Your task to perform on an android device: turn pop-ups off in chrome Image 0: 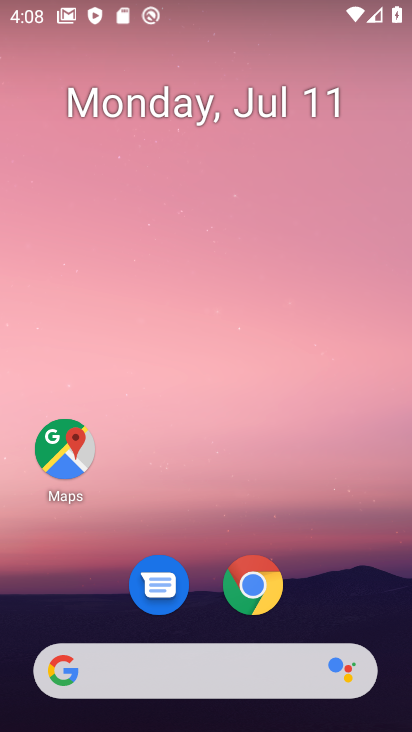
Step 0: drag from (232, 512) to (256, 176)
Your task to perform on an android device: turn pop-ups off in chrome Image 1: 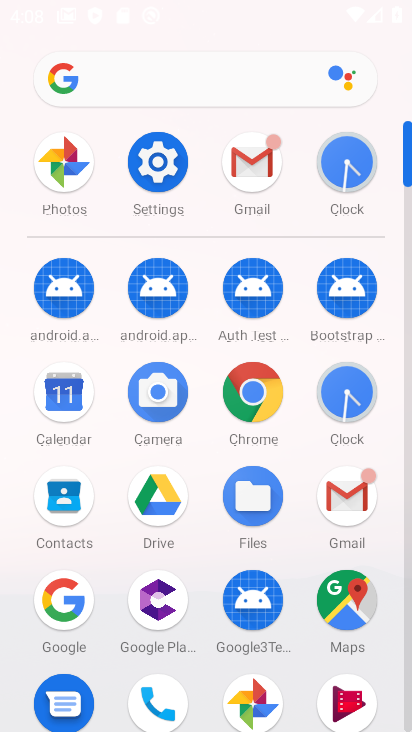
Step 1: click (251, 386)
Your task to perform on an android device: turn pop-ups off in chrome Image 2: 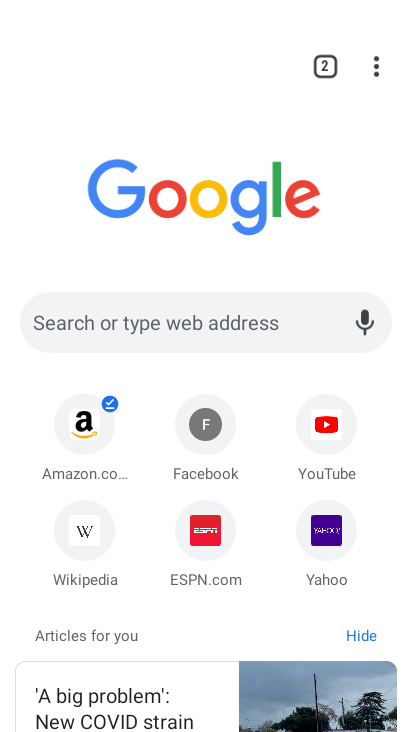
Step 2: click (374, 66)
Your task to perform on an android device: turn pop-ups off in chrome Image 3: 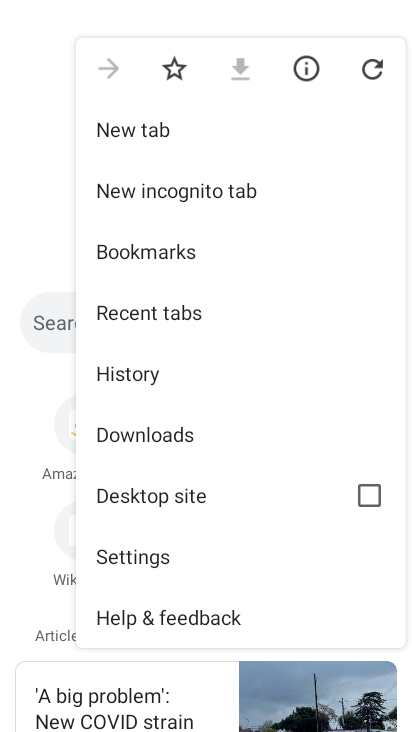
Step 3: click (163, 552)
Your task to perform on an android device: turn pop-ups off in chrome Image 4: 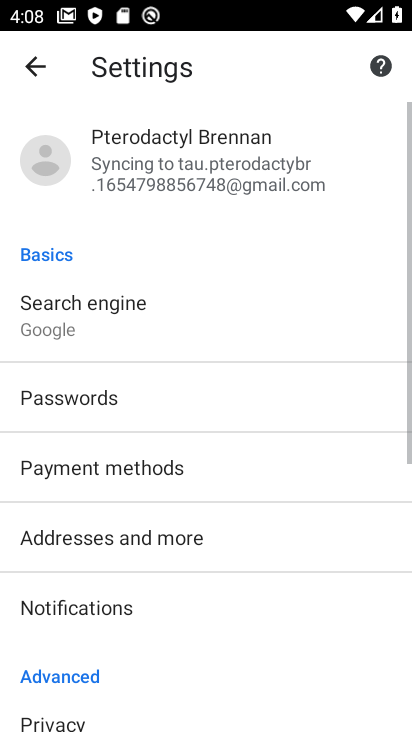
Step 4: drag from (223, 578) to (263, 216)
Your task to perform on an android device: turn pop-ups off in chrome Image 5: 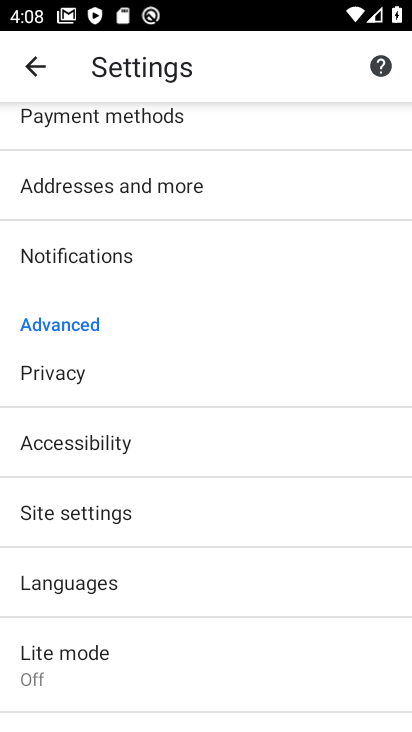
Step 5: click (117, 508)
Your task to perform on an android device: turn pop-ups off in chrome Image 6: 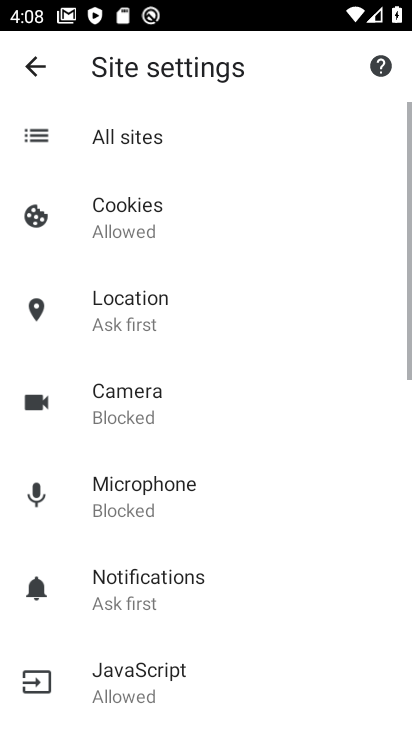
Step 6: drag from (240, 586) to (263, 303)
Your task to perform on an android device: turn pop-ups off in chrome Image 7: 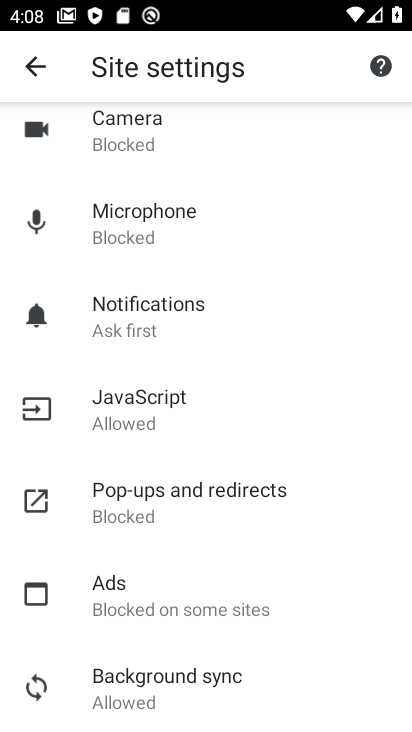
Step 7: click (219, 479)
Your task to perform on an android device: turn pop-ups off in chrome Image 8: 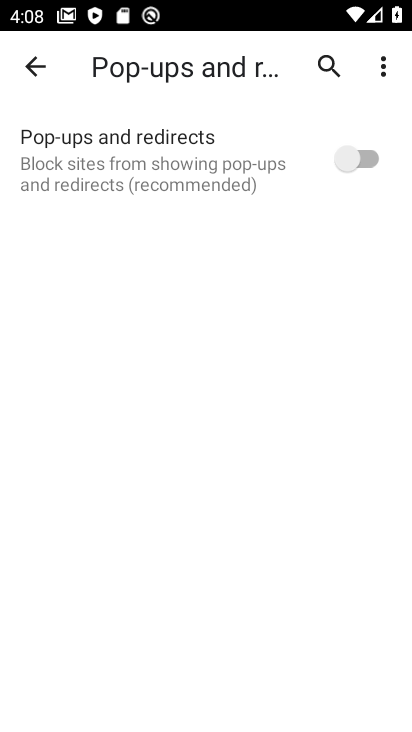
Step 8: click (347, 153)
Your task to perform on an android device: turn pop-ups off in chrome Image 9: 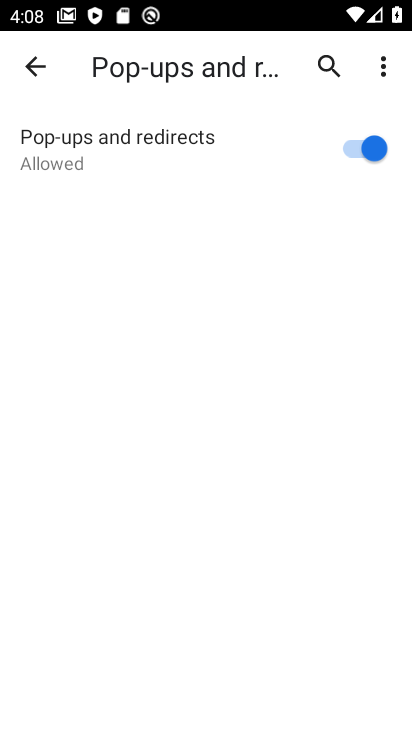
Step 9: click (351, 143)
Your task to perform on an android device: turn pop-ups off in chrome Image 10: 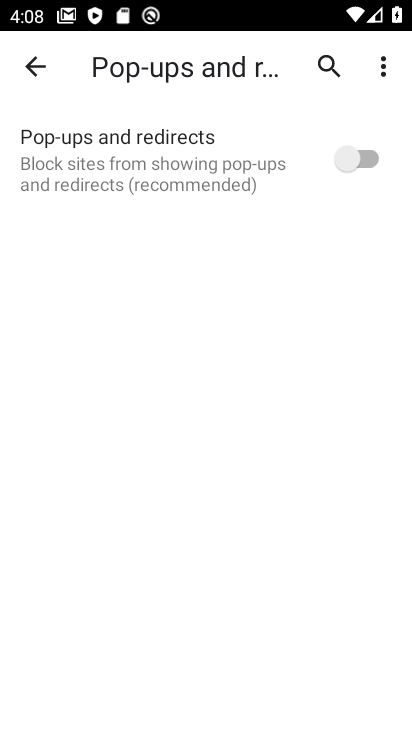
Step 10: task complete